Your task to perform on an android device: check battery use Image 0: 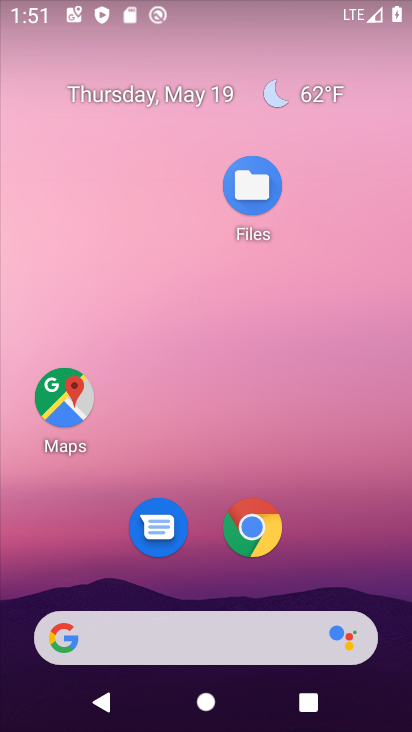
Step 0: drag from (387, 541) to (337, 121)
Your task to perform on an android device: check battery use Image 1: 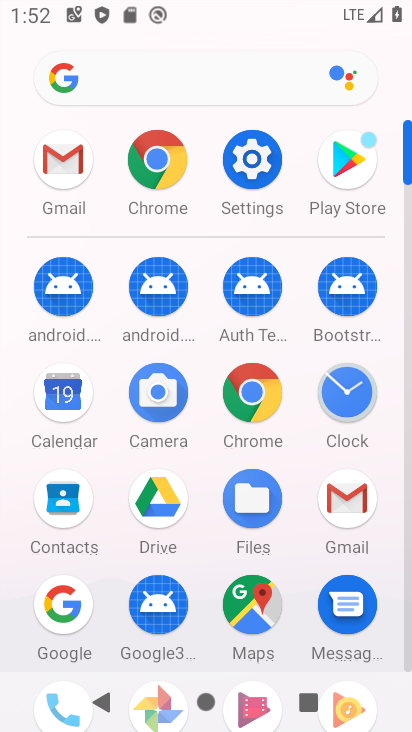
Step 1: click (255, 160)
Your task to perform on an android device: check battery use Image 2: 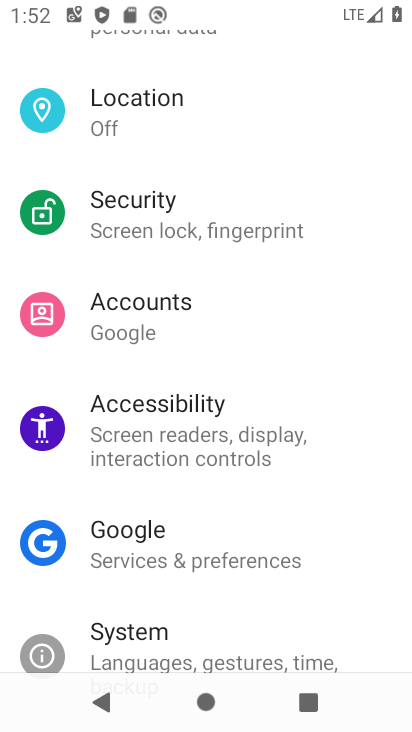
Step 2: drag from (294, 521) to (290, 187)
Your task to perform on an android device: check battery use Image 3: 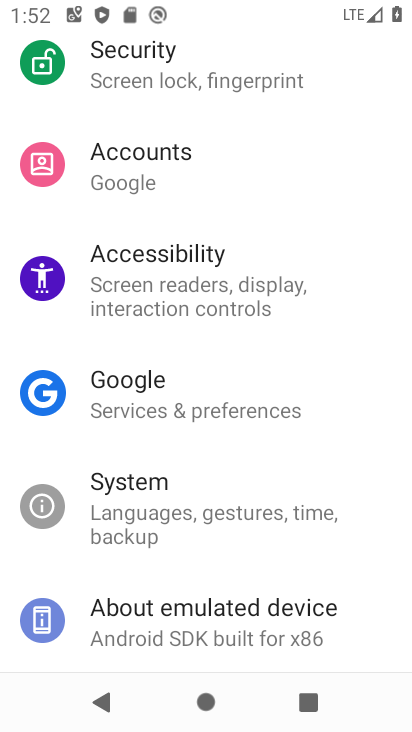
Step 3: drag from (246, 127) to (275, 553)
Your task to perform on an android device: check battery use Image 4: 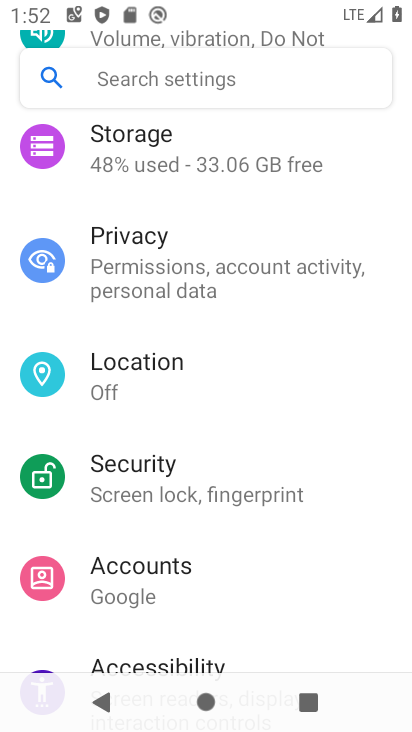
Step 4: drag from (208, 283) to (263, 584)
Your task to perform on an android device: check battery use Image 5: 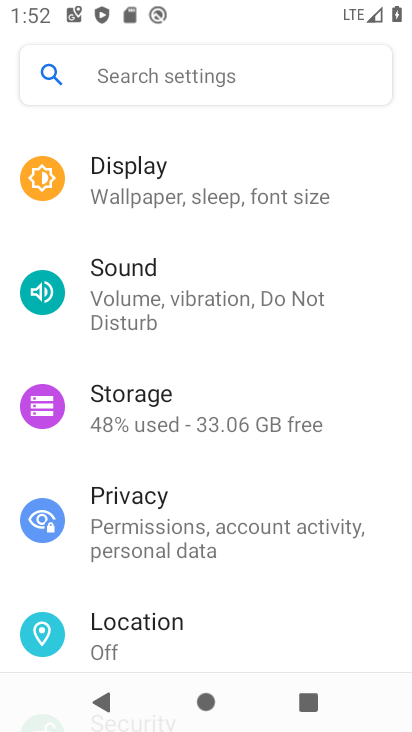
Step 5: drag from (214, 280) to (259, 607)
Your task to perform on an android device: check battery use Image 6: 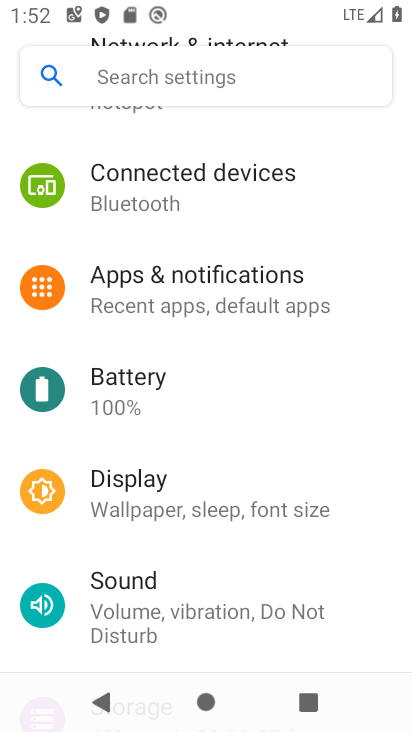
Step 6: click (181, 383)
Your task to perform on an android device: check battery use Image 7: 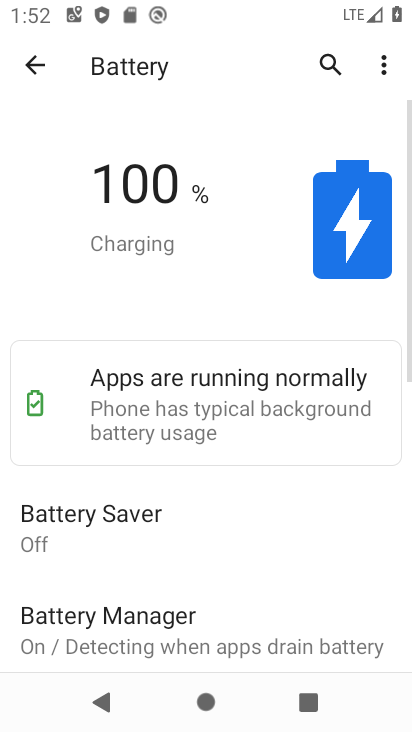
Step 7: task complete